Your task to perform on an android device: Go to Maps Image 0: 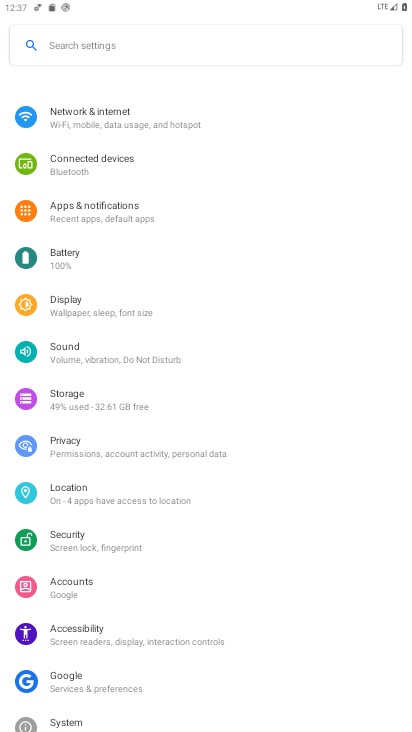
Step 0: press home button
Your task to perform on an android device: Go to Maps Image 1: 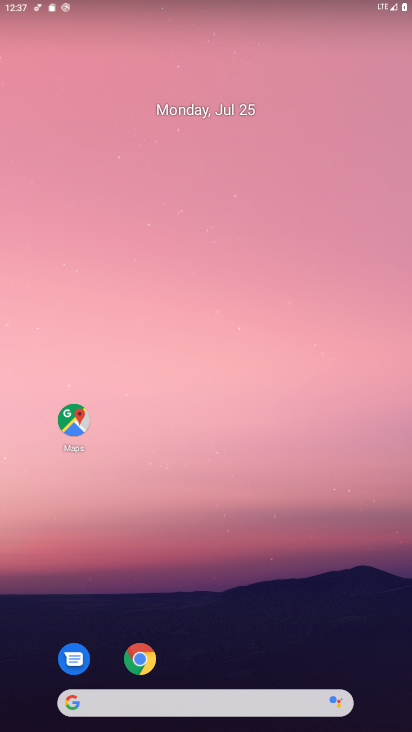
Step 1: click (76, 414)
Your task to perform on an android device: Go to Maps Image 2: 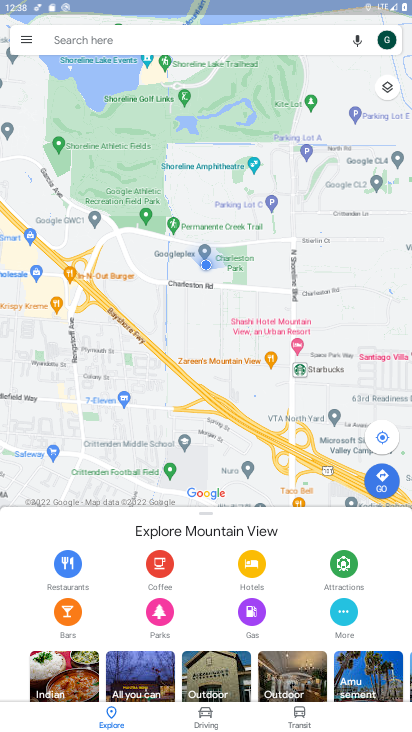
Step 2: task complete